Your task to perform on an android device: turn on the 24-hour format for clock Image 0: 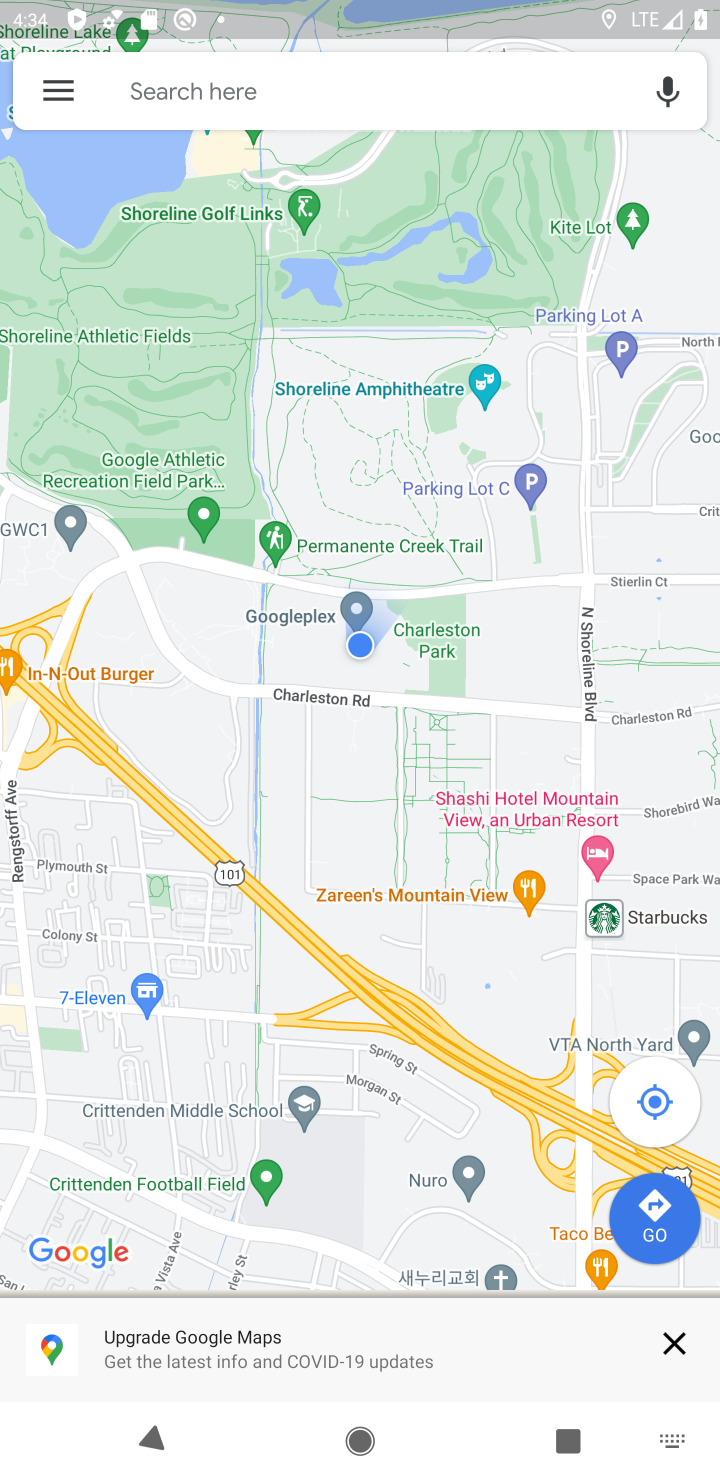
Step 0: press home button
Your task to perform on an android device: turn on the 24-hour format for clock Image 1: 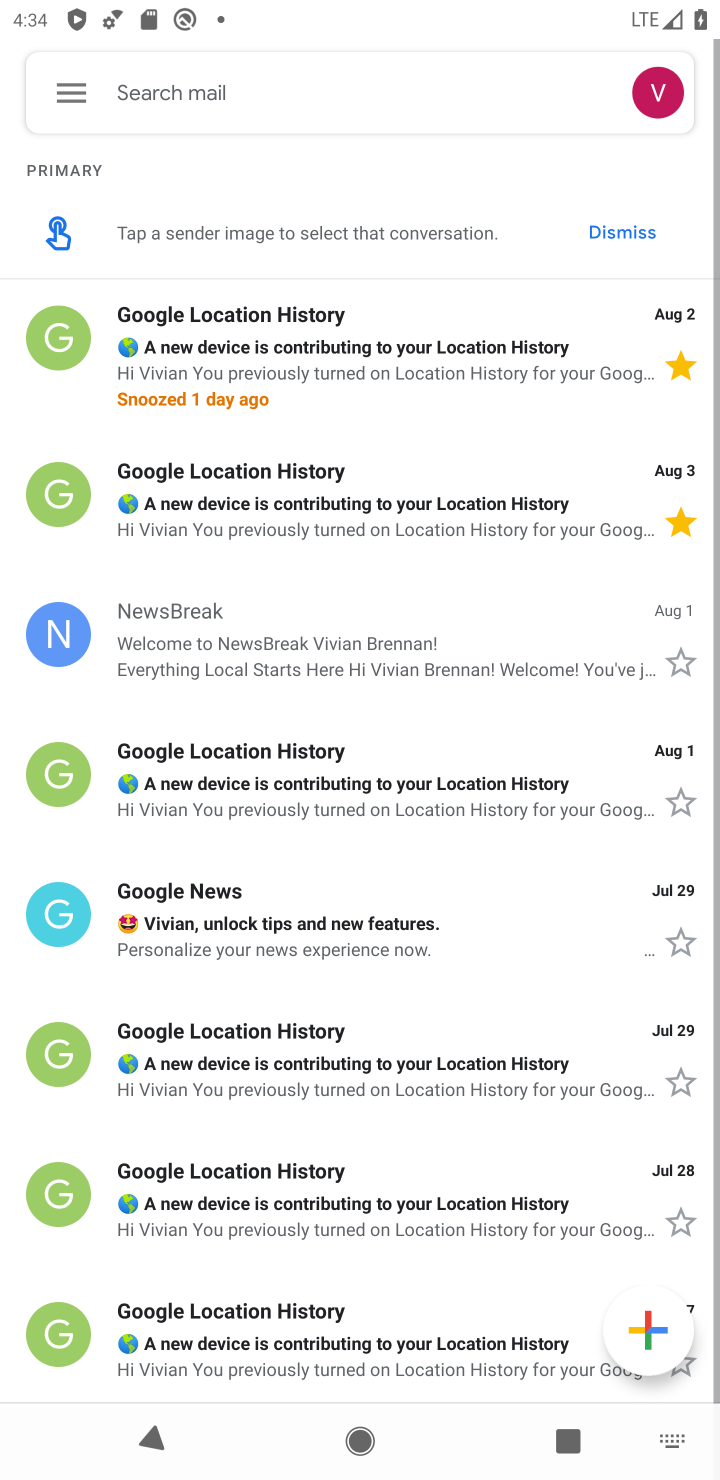
Step 1: press home button
Your task to perform on an android device: turn on the 24-hour format for clock Image 2: 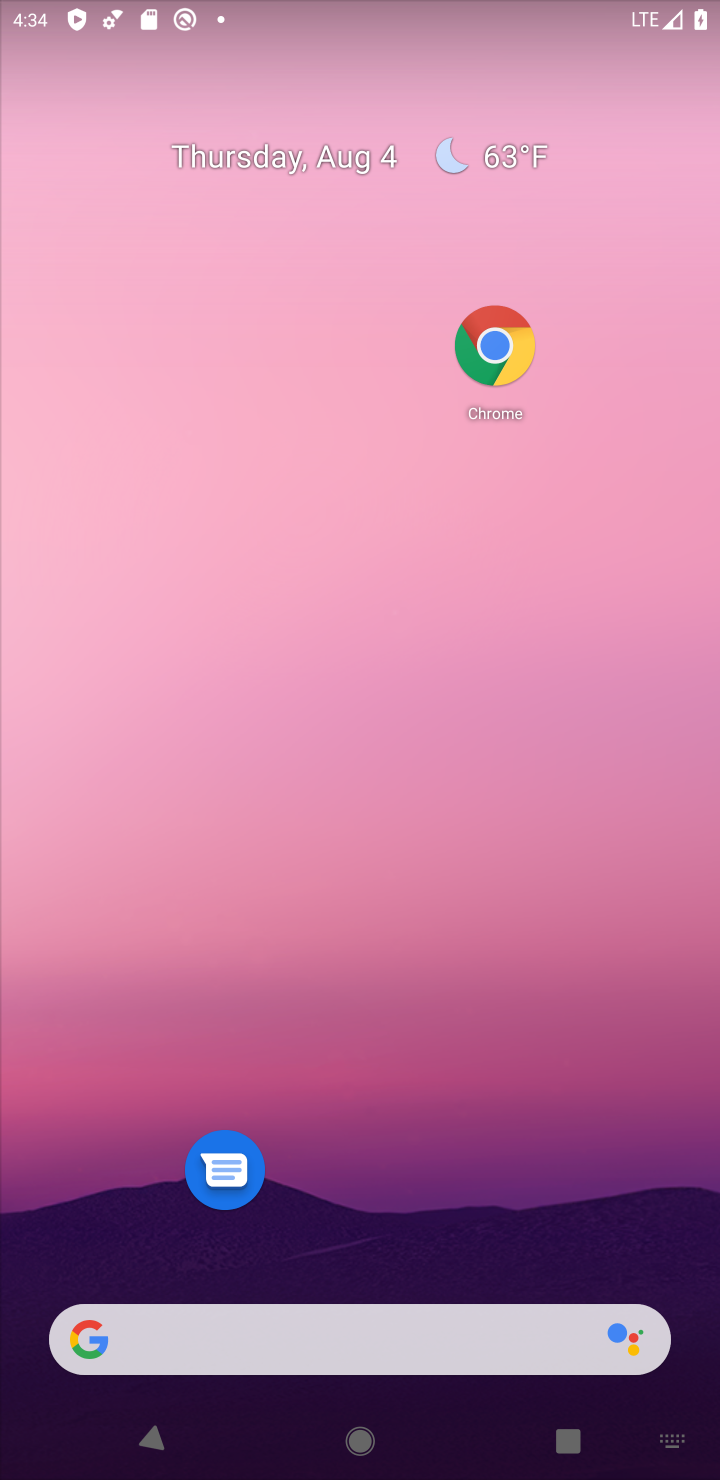
Step 2: drag from (669, 1220) to (673, 13)
Your task to perform on an android device: turn on the 24-hour format for clock Image 3: 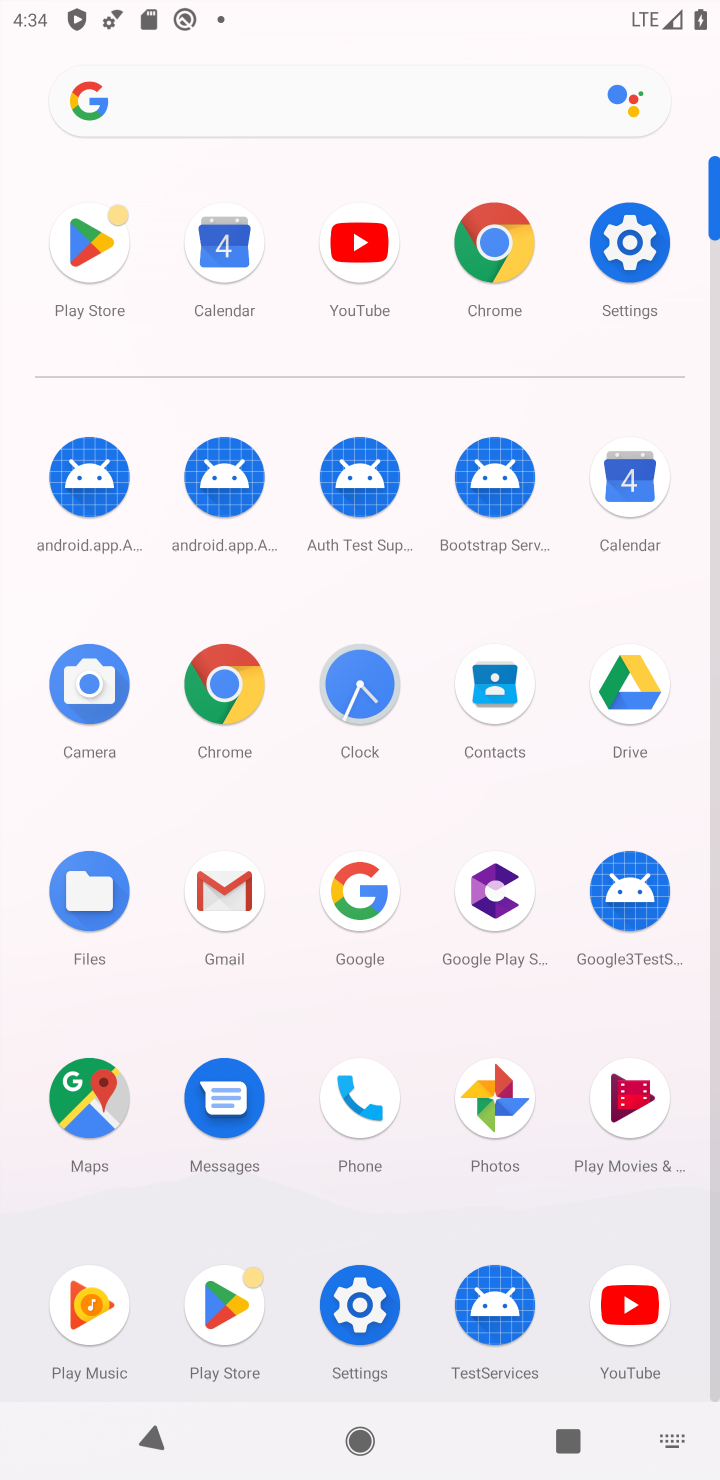
Step 3: click (344, 728)
Your task to perform on an android device: turn on the 24-hour format for clock Image 4: 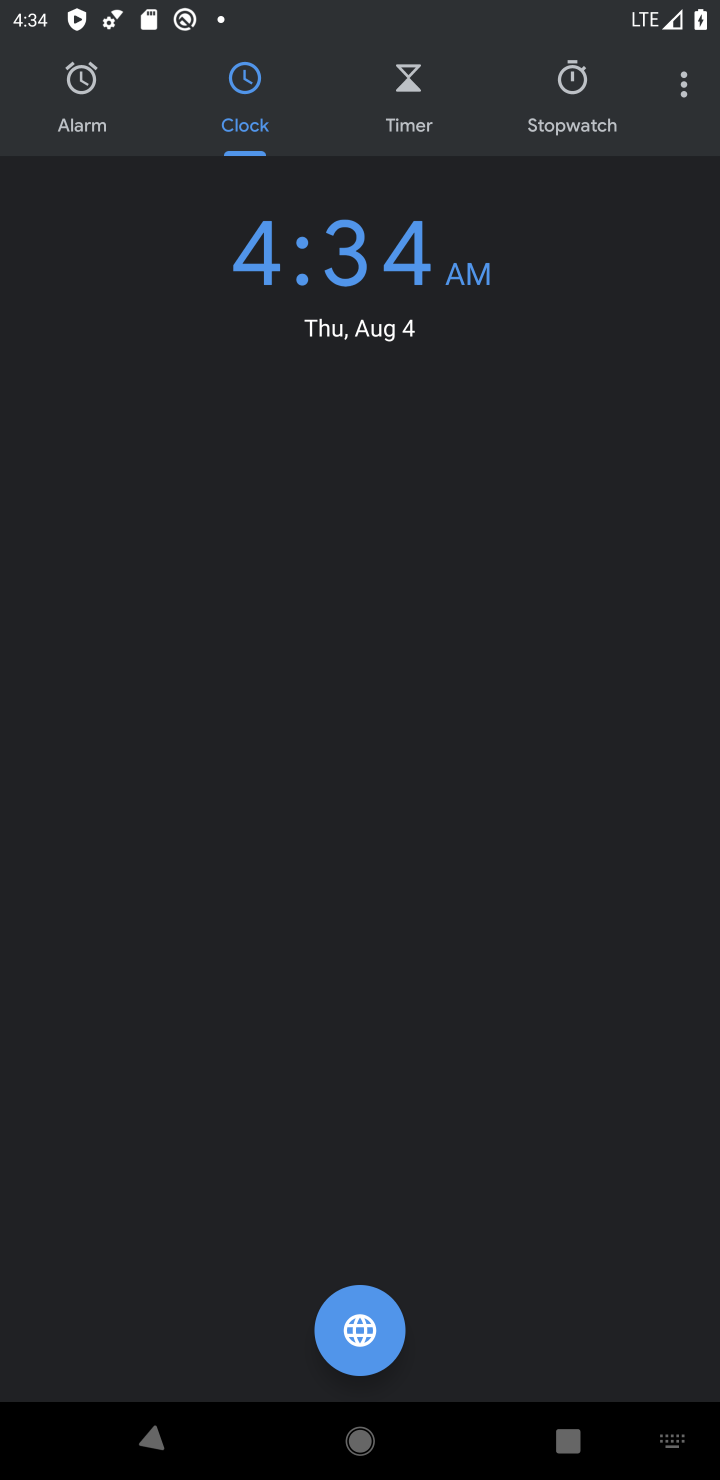
Step 4: click (681, 100)
Your task to perform on an android device: turn on the 24-hour format for clock Image 5: 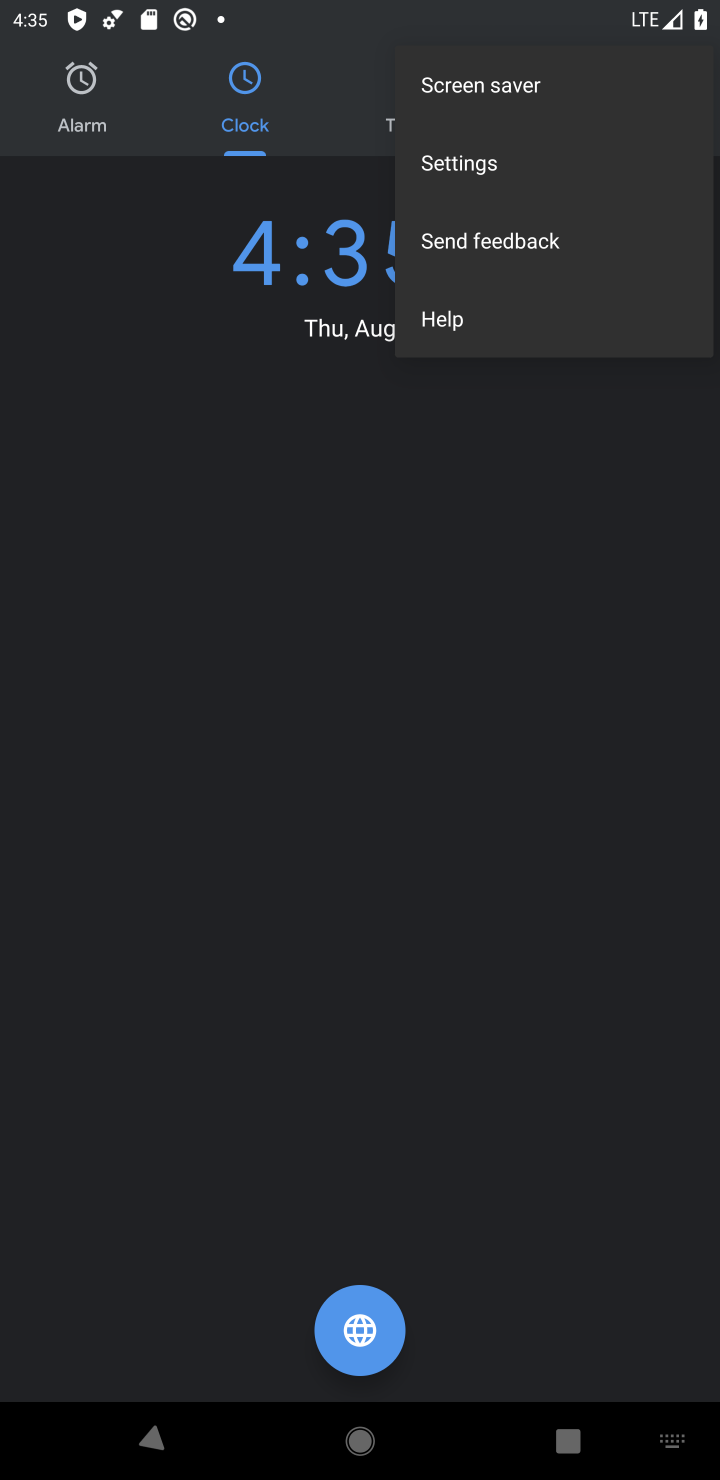
Step 5: click (563, 160)
Your task to perform on an android device: turn on the 24-hour format for clock Image 6: 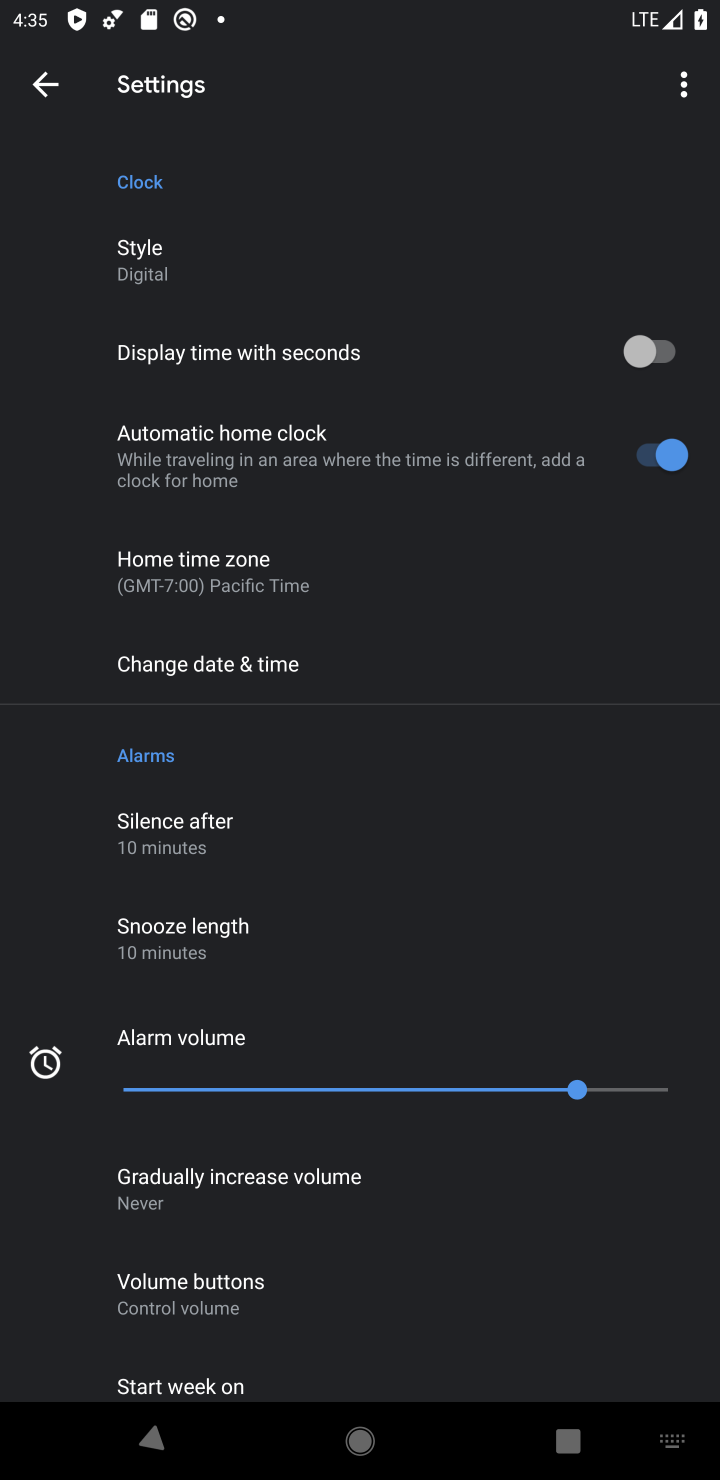
Step 6: click (434, 654)
Your task to perform on an android device: turn on the 24-hour format for clock Image 7: 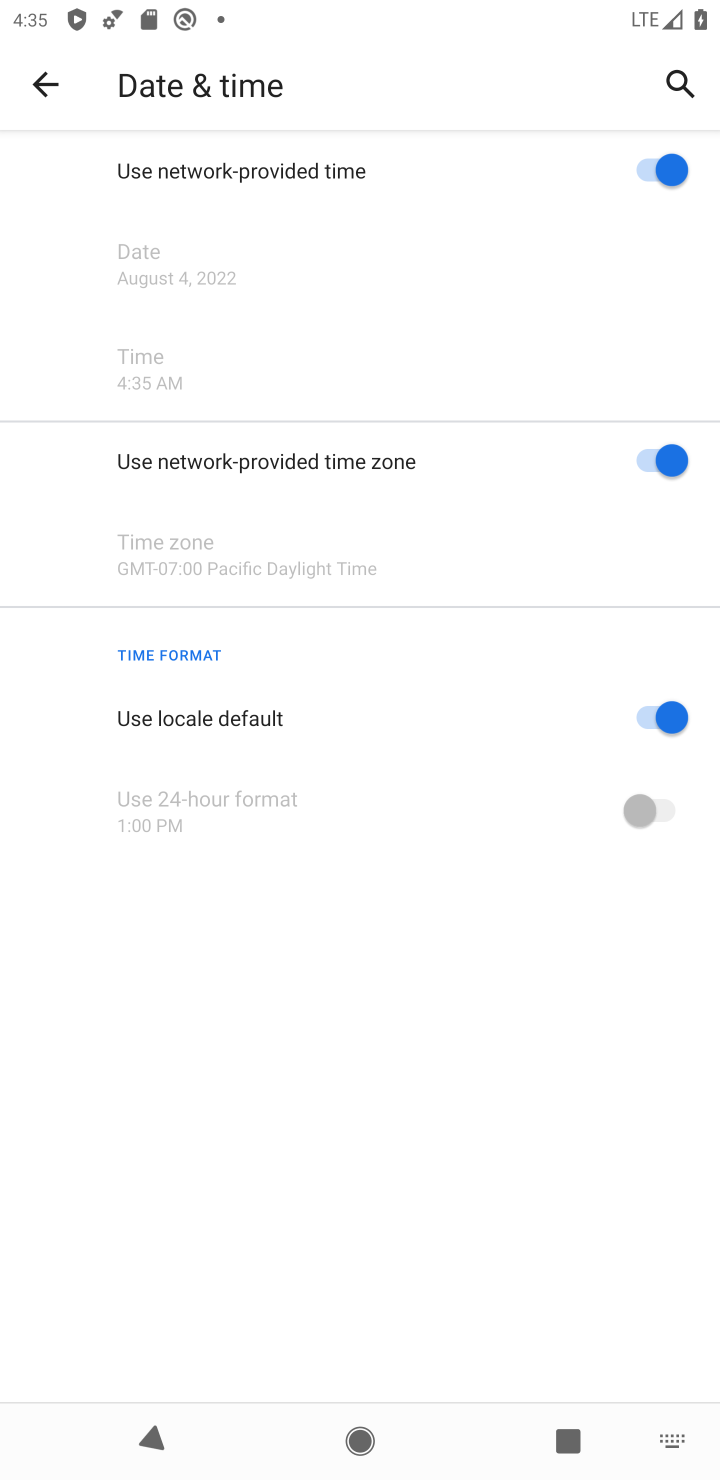
Step 7: click (672, 718)
Your task to perform on an android device: turn on the 24-hour format for clock Image 8: 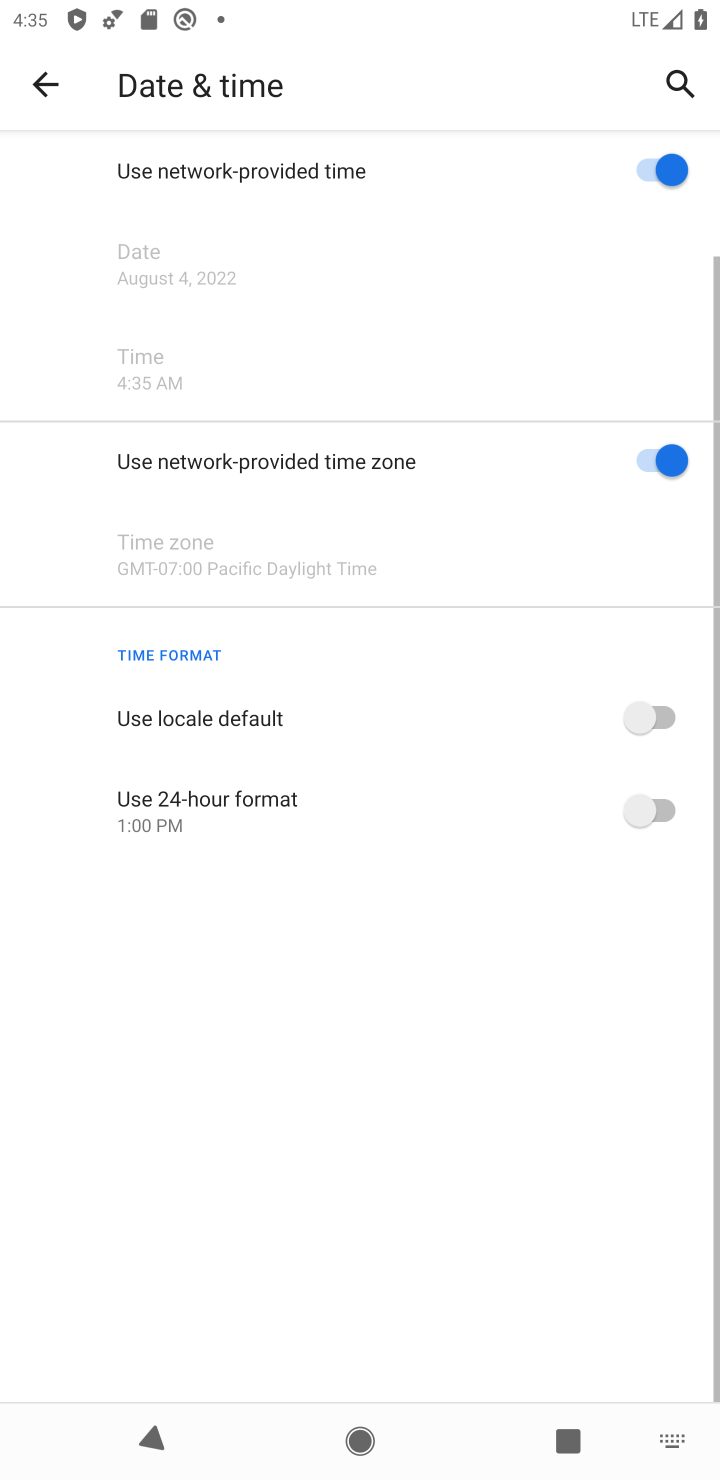
Step 8: click (665, 814)
Your task to perform on an android device: turn on the 24-hour format for clock Image 9: 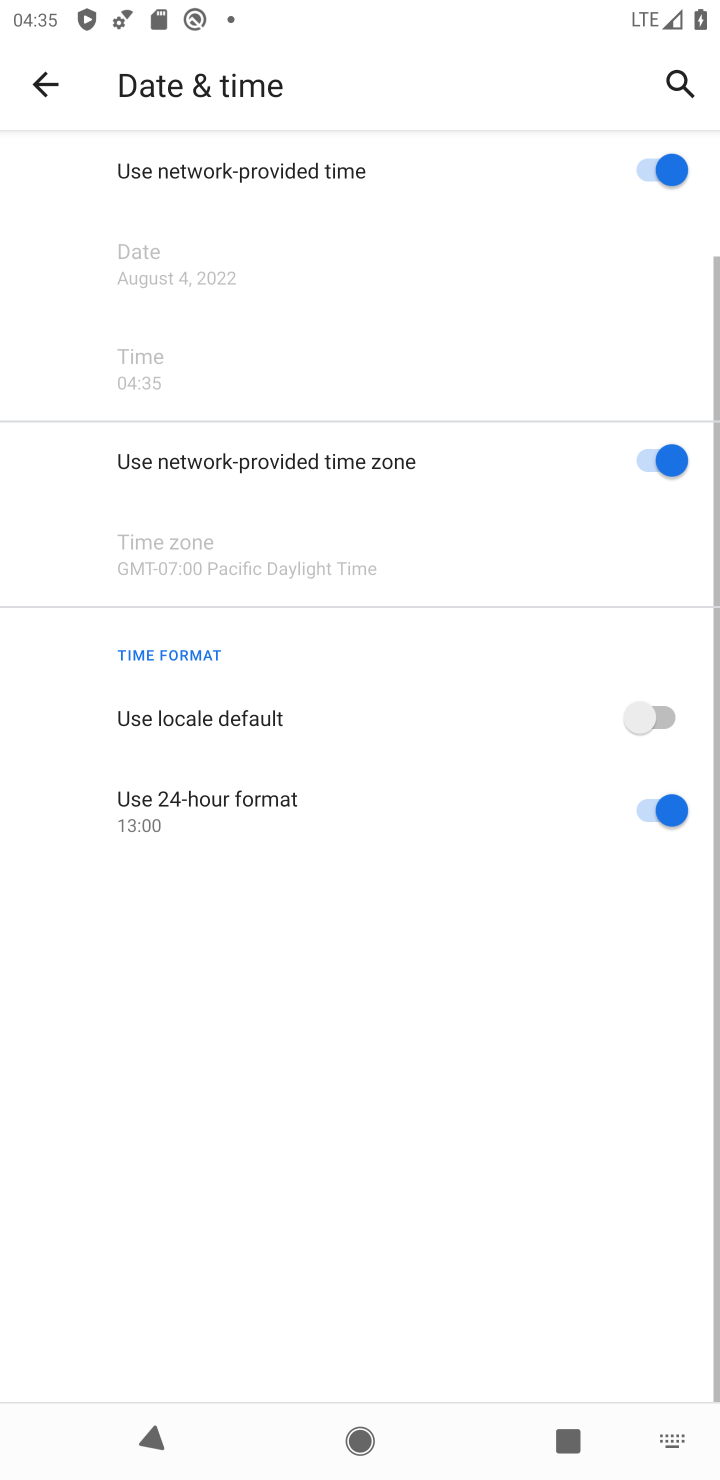
Step 9: task complete